Your task to perform on an android device: Search for the best books of all time on Goodreads Image 0: 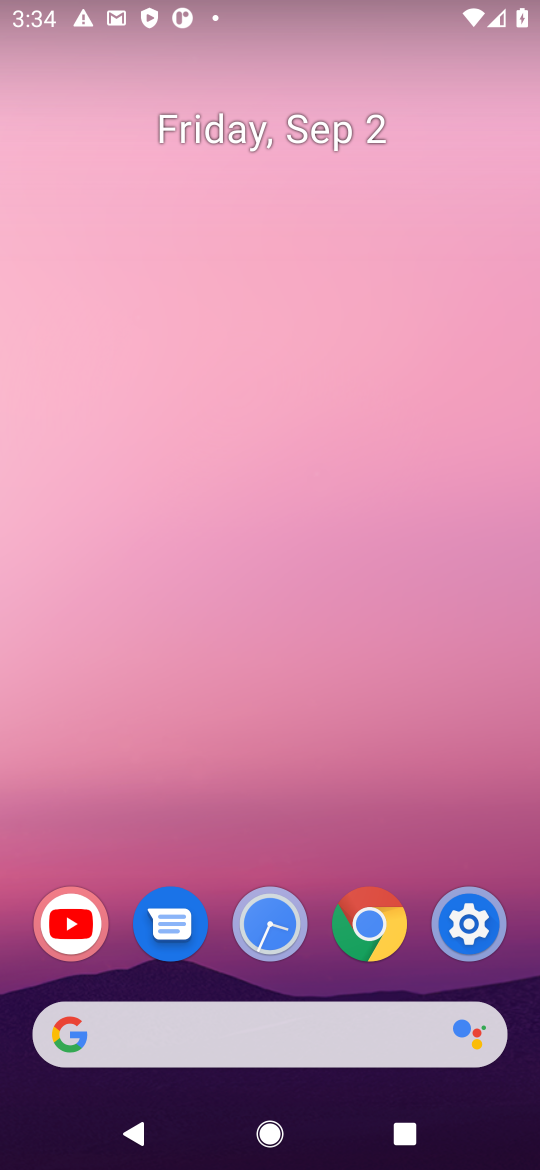
Step 0: click (407, 1032)
Your task to perform on an android device: Search for the best books of all time on Goodreads Image 1: 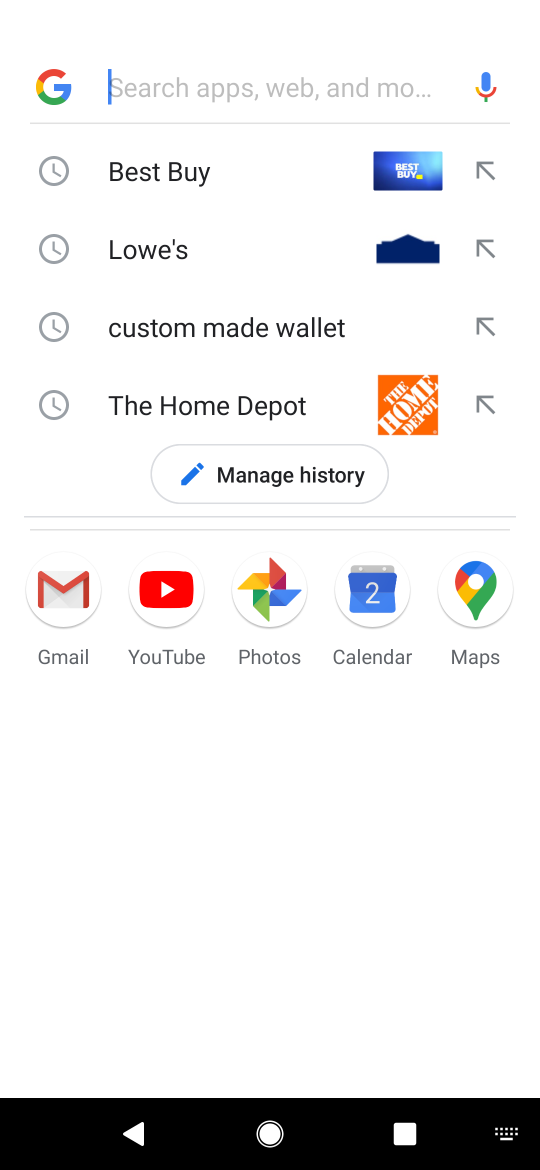
Step 1: press enter
Your task to perform on an android device: Search for the best books of all time on Goodreads Image 2: 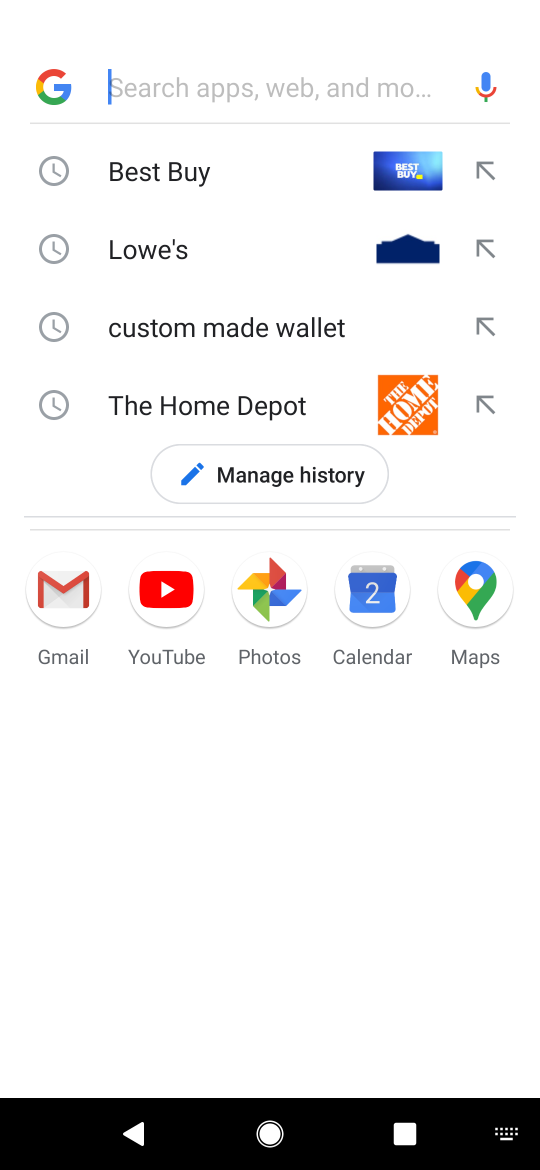
Step 2: type "goodreads"
Your task to perform on an android device: Search for the best books of all time on Goodreads Image 3: 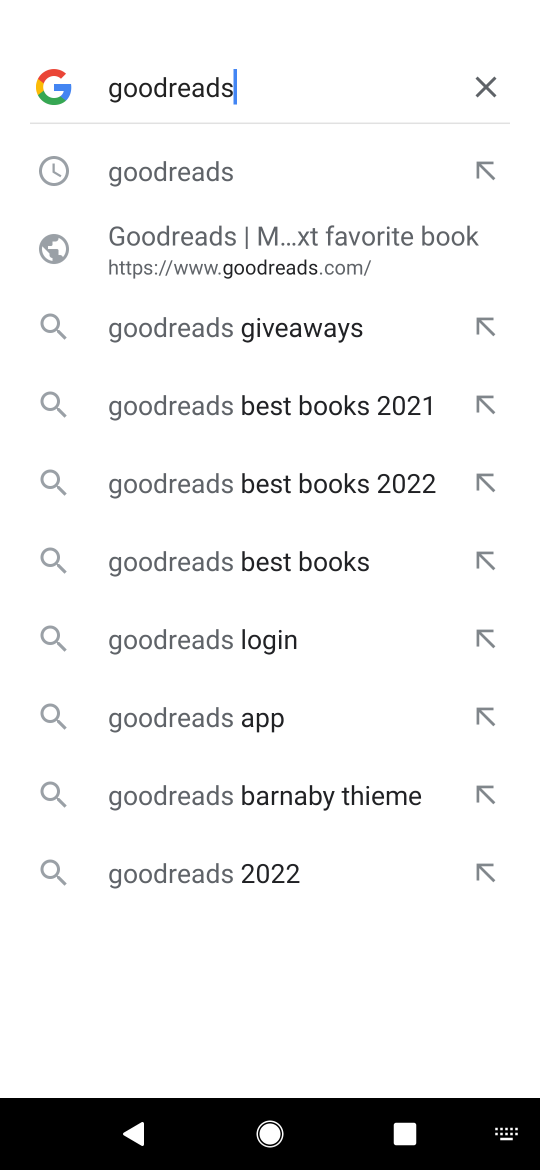
Step 3: click (225, 172)
Your task to perform on an android device: Search for the best books of all time on Goodreads Image 4: 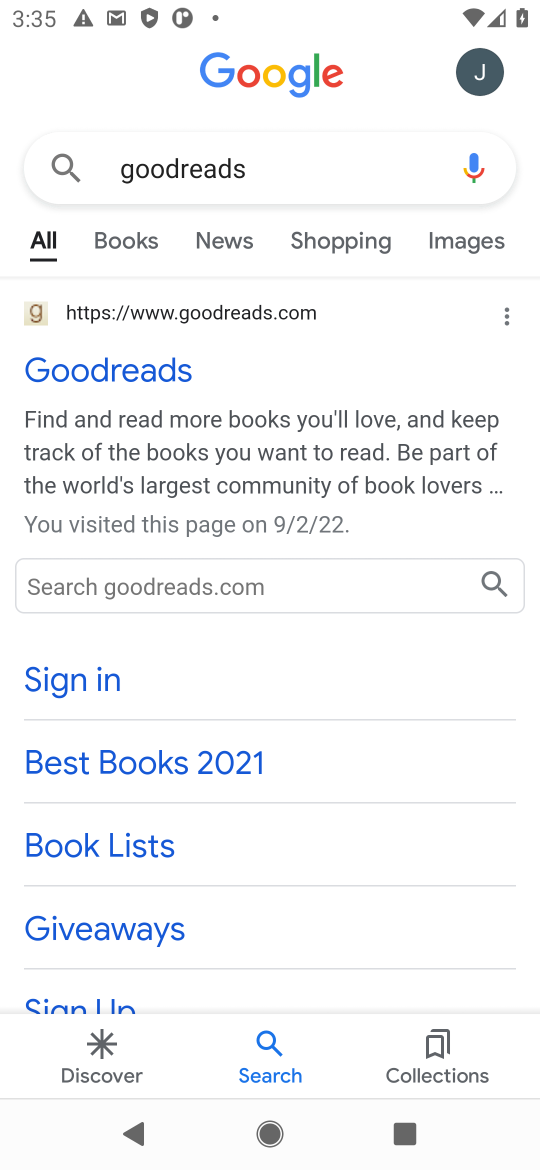
Step 4: click (175, 363)
Your task to perform on an android device: Search for the best books of all time on Goodreads Image 5: 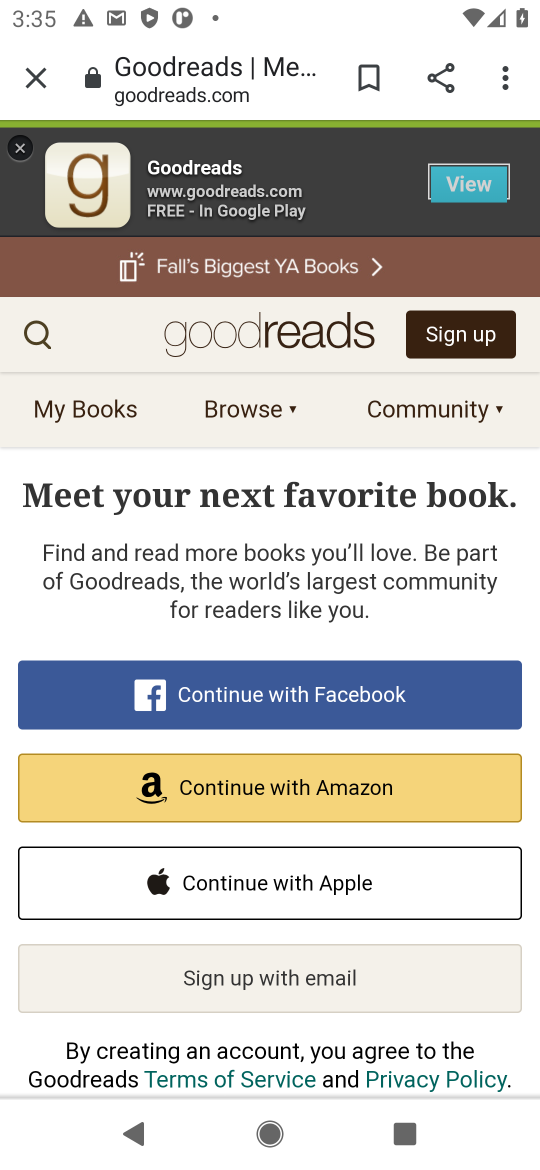
Step 5: click (29, 324)
Your task to perform on an android device: Search for the best books of all time on Goodreads Image 6: 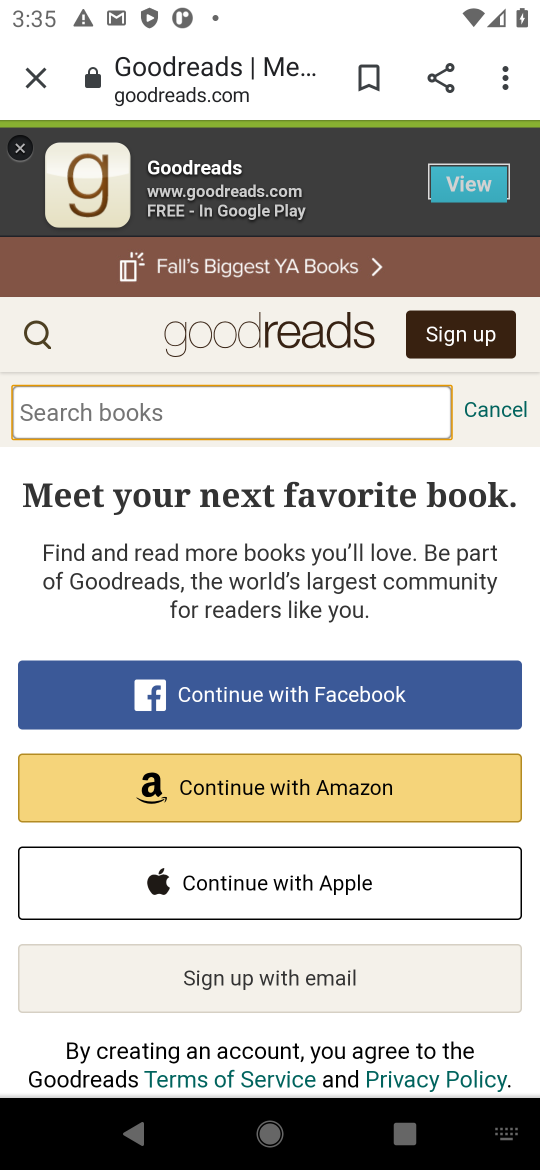
Step 6: type "best books of all time"
Your task to perform on an android device: Search for the best books of all time on Goodreads Image 7: 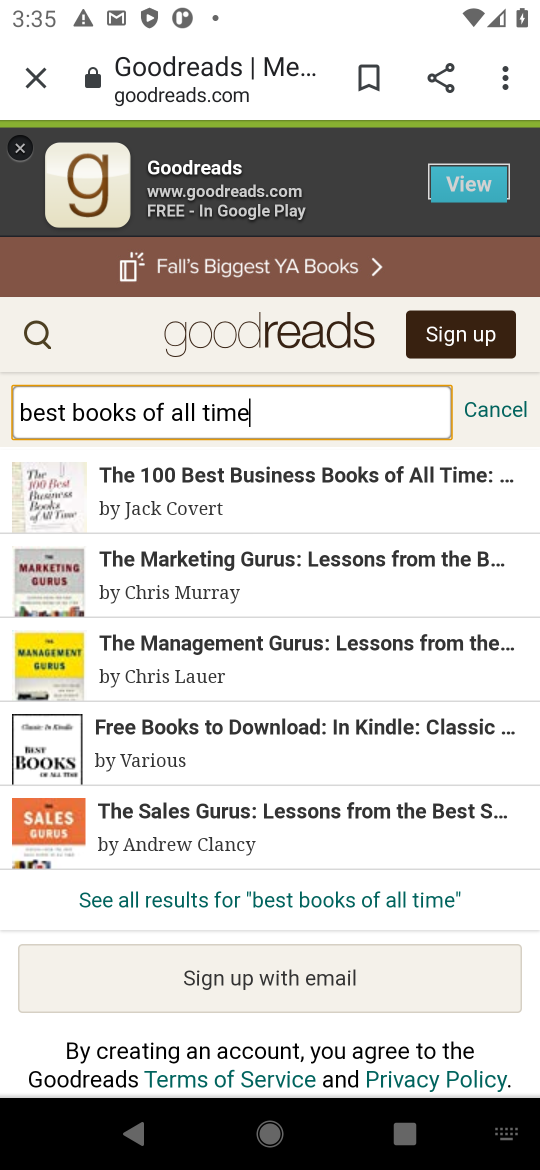
Step 7: task complete